Your task to perform on an android device: Show me the alarms in the clock app Image 0: 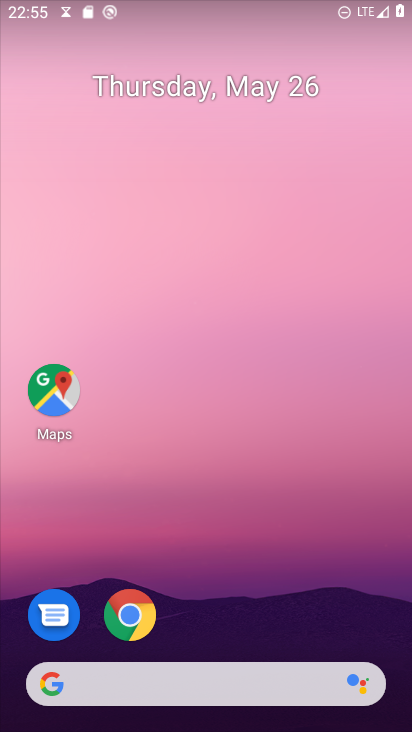
Step 0: drag from (247, 575) to (282, 277)
Your task to perform on an android device: Show me the alarms in the clock app Image 1: 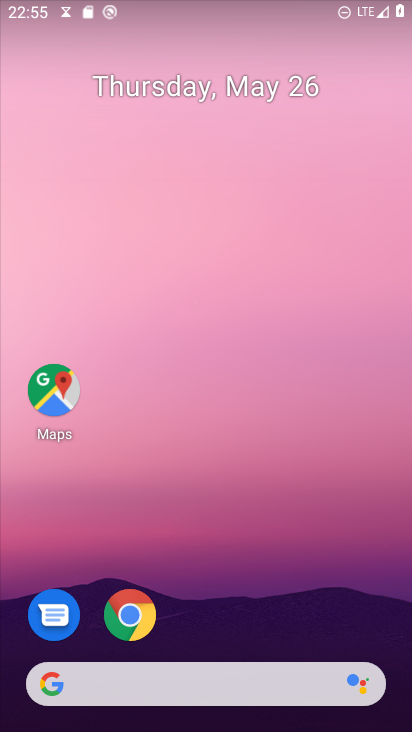
Step 1: drag from (260, 593) to (284, 167)
Your task to perform on an android device: Show me the alarms in the clock app Image 2: 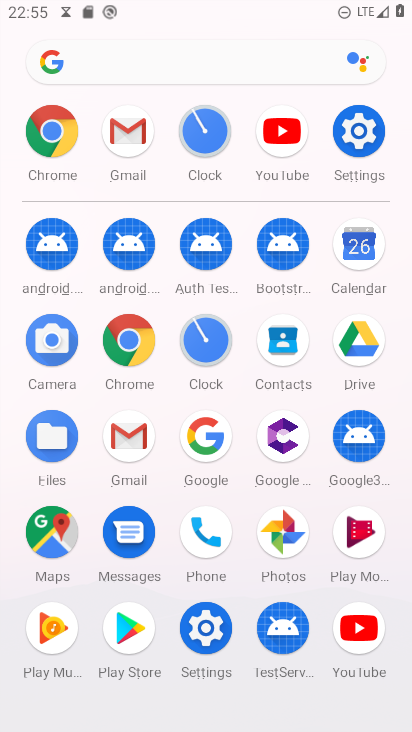
Step 2: click (197, 330)
Your task to perform on an android device: Show me the alarms in the clock app Image 3: 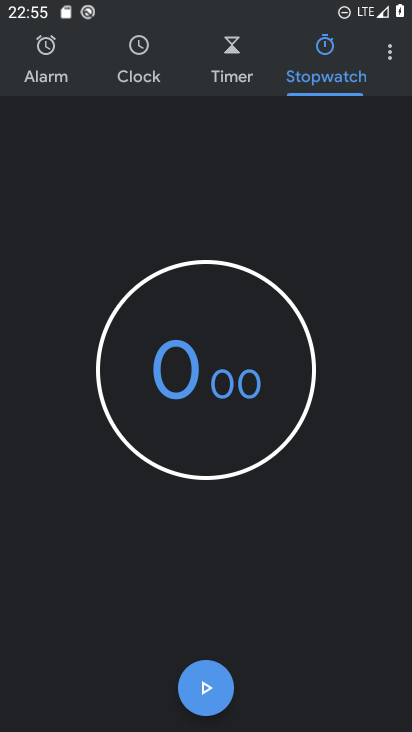
Step 3: click (37, 51)
Your task to perform on an android device: Show me the alarms in the clock app Image 4: 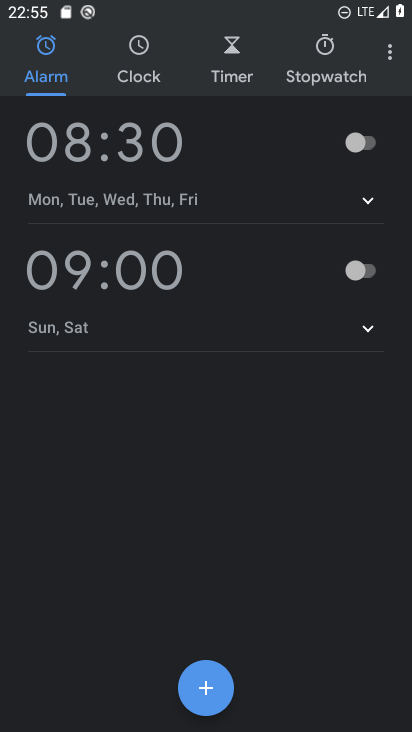
Step 4: task complete